Your task to perform on an android device: change the clock display to show seconds Image 0: 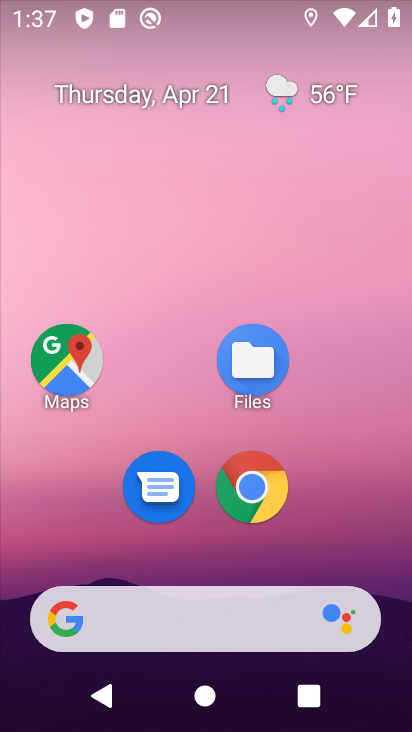
Step 0: drag from (363, 509) to (378, 101)
Your task to perform on an android device: change the clock display to show seconds Image 1: 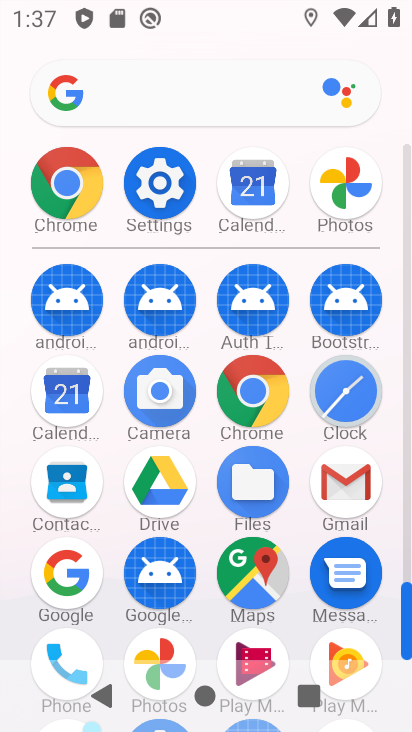
Step 1: click (349, 404)
Your task to perform on an android device: change the clock display to show seconds Image 2: 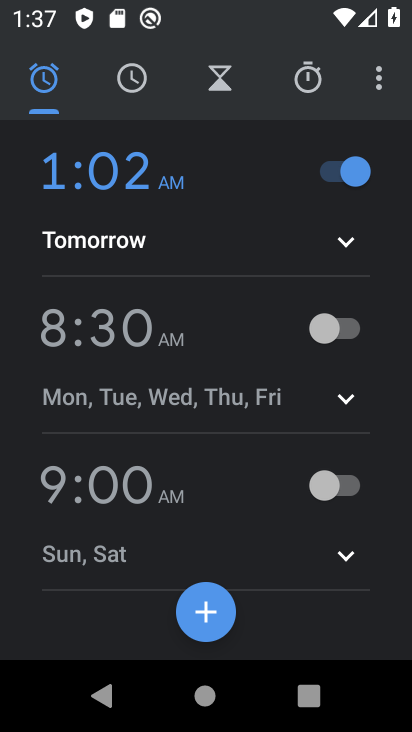
Step 2: click (379, 83)
Your task to perform on an android device: change the clock display to show seconds Image 3: 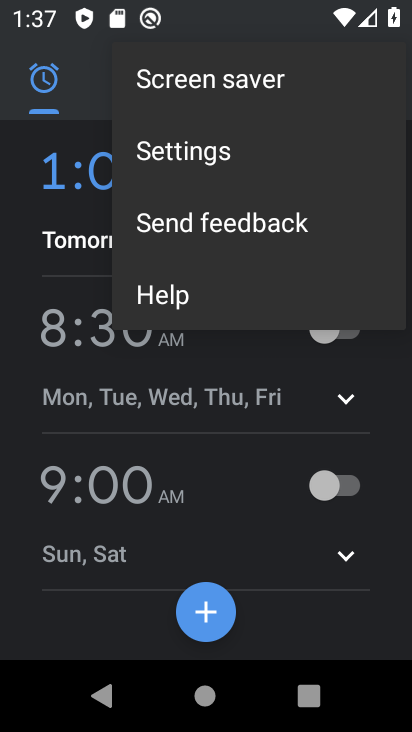
Step 3: click (218, 156)
Your task to perform on an android device: change the clock display to show seconds Image 4: 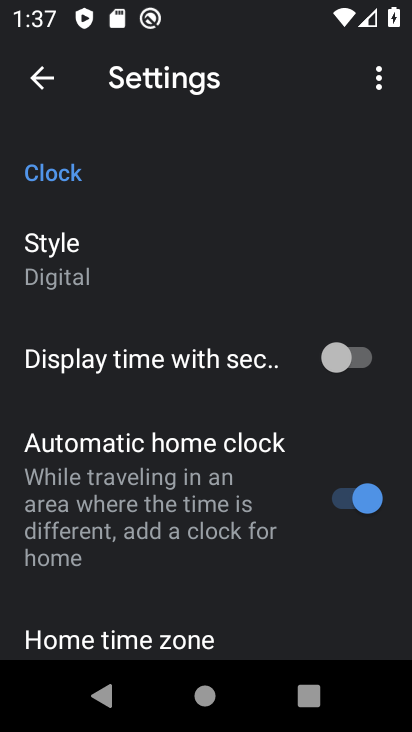
Step 4: click (365, 369)
Your task to perform on an android device: change the clock display to show seconds Image 5: 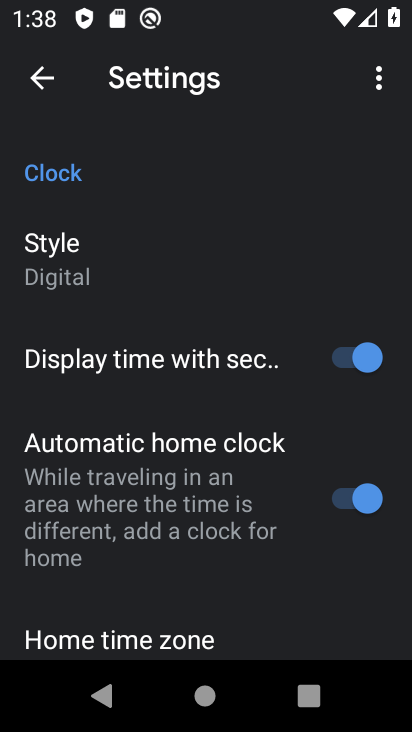
Step 5: task complete